Your task to perform on an android device: Open CNN.com Image 0: 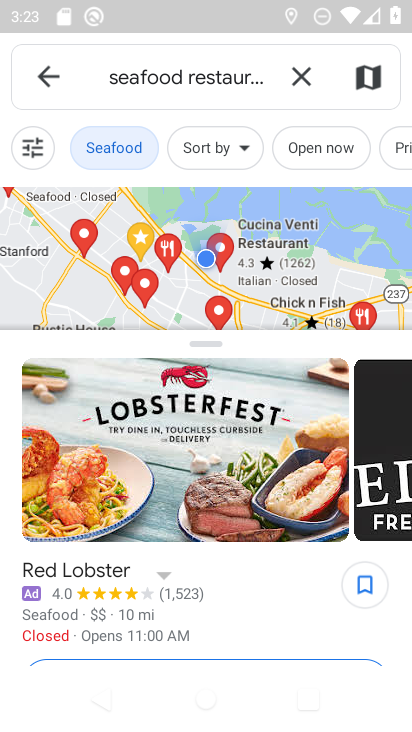
Step 0: press home button
Your task to perform on an android device: Open CNN.com Image 1: 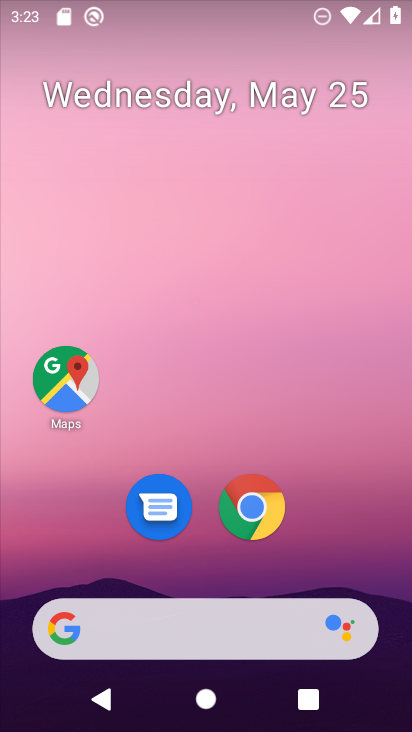
Step 1: drag from (208, 608) to (255, 208)
Your task to perform on an android device: Open CNN.com Image 2: 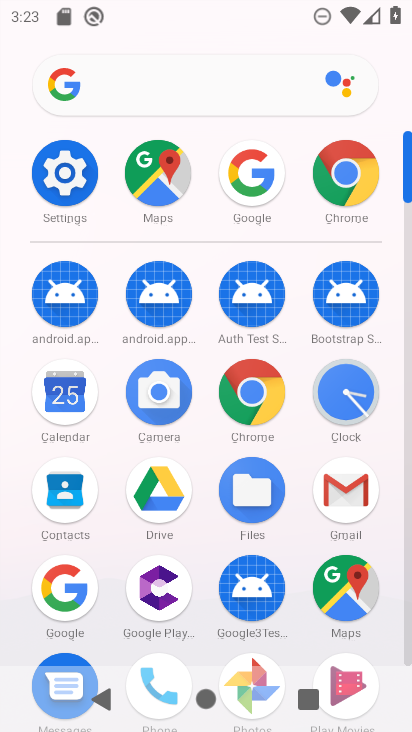
Step 2: click (345, 172)
Your task to perform on an android device: Open CNN.com Image 3: 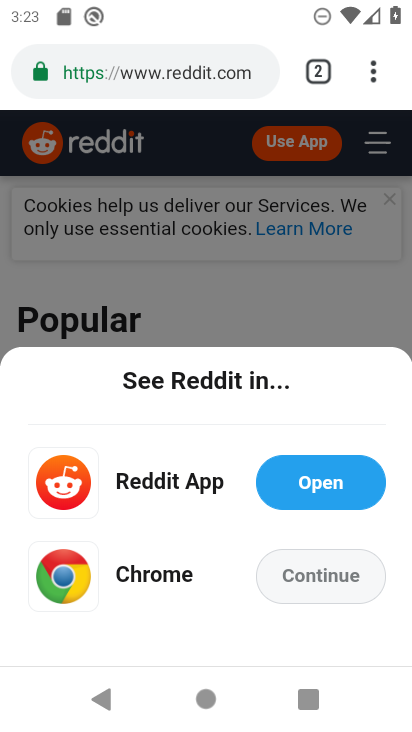
Step 3: click (231, 87)
Your task to perform on an android device: Open CNN.com Image 4: 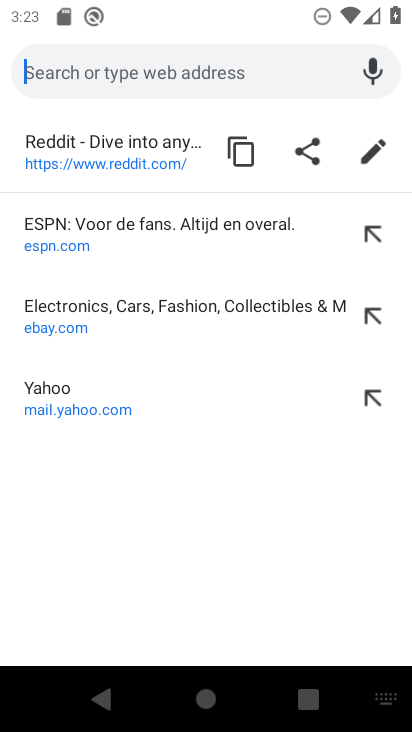
Step 4: type "cnn"
Your task to perform on an android device: Open CNN.com Image 5: 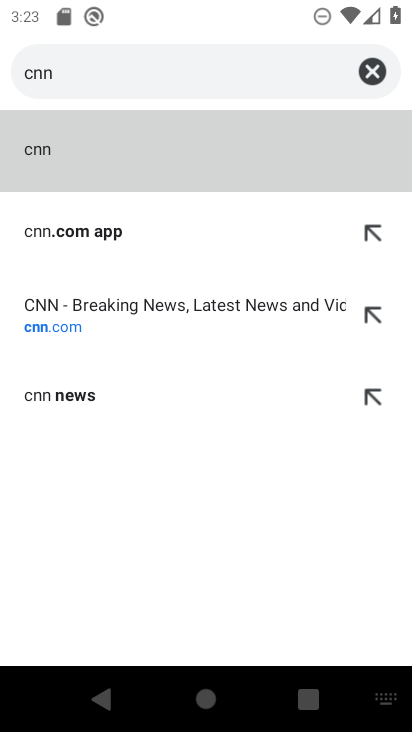
Step 5: click (100, 314)
Your task to perform on an android device: Open CNN.com Image 6: 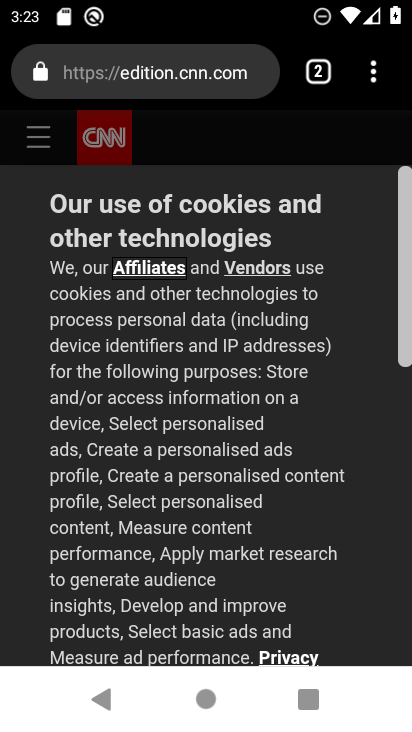
Step 6: task complete